Your task to perform on an android device: Open network settings Image 0: 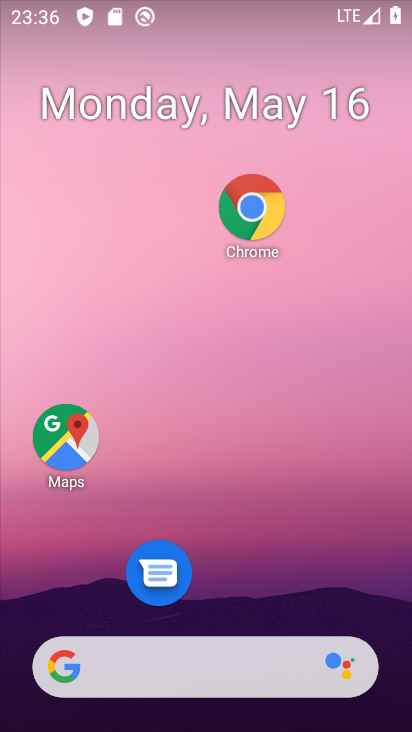
Step 0: drag from (281, 610) to (289, 0)
Your task to perform on an android device: Open network settings Image 1: 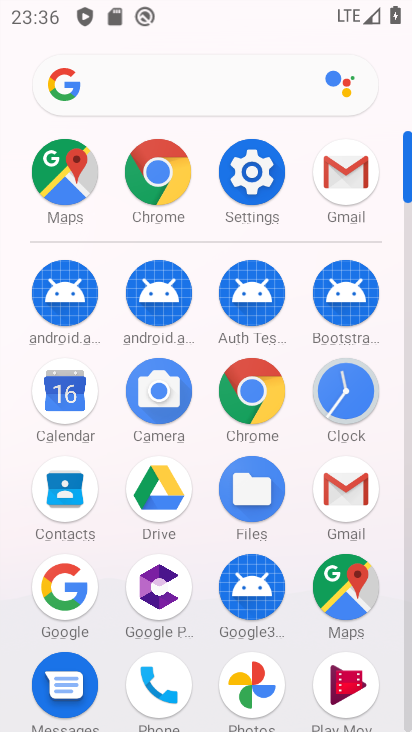
Step 1: click (265, 162)
Your task to perform on an android device: Open network settings Image 2: 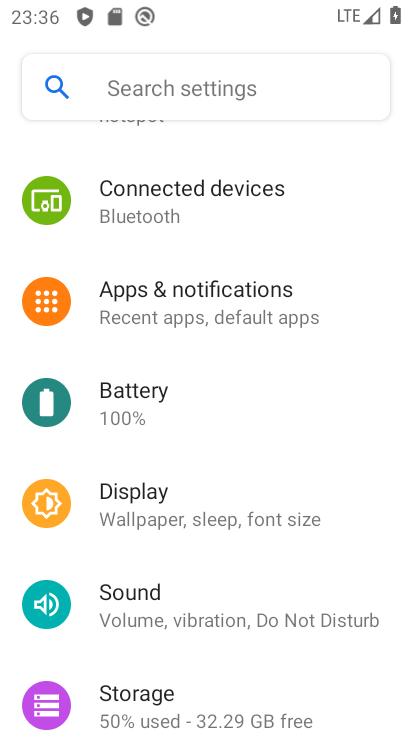
Step 2: drag from (235, 233) to (315, 668)
Your task to perform on an android device: Open network settings Image 3: 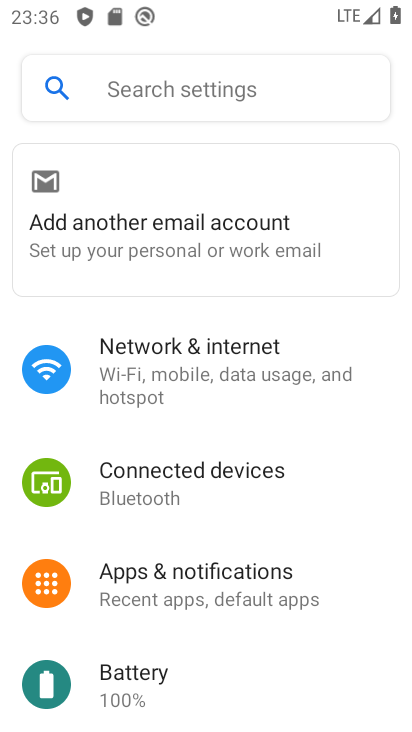
Step 3: click (243, 375)
Your task to perform on an android device: Open network settings Image 4: 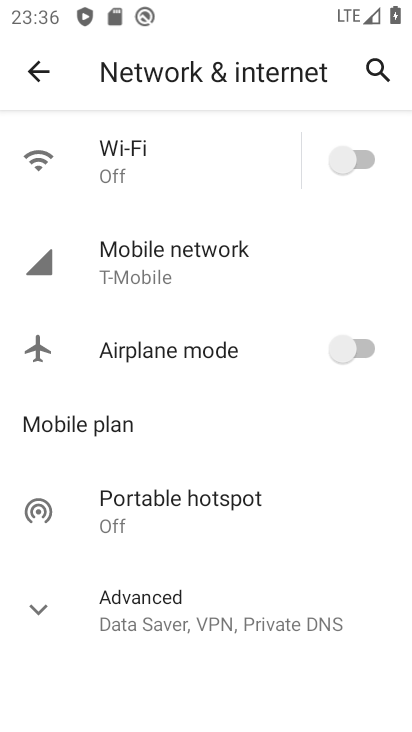
Step 4: click (200, 252)
Your task to perform on an android device: Open network settings Image 5: 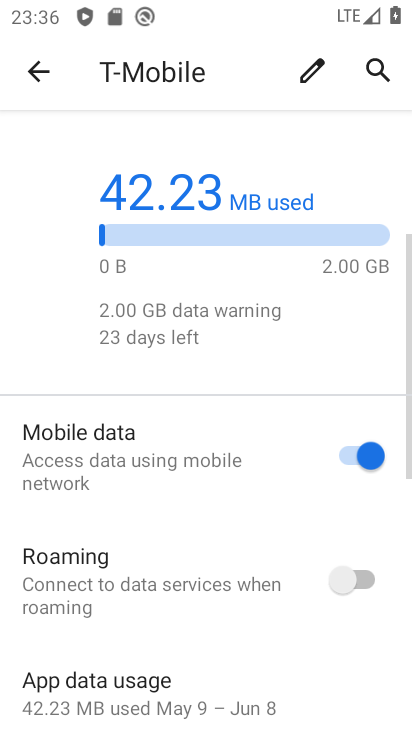
Step 5: task complete